Your task to perform on an android device: change text size in settings app Image 0: 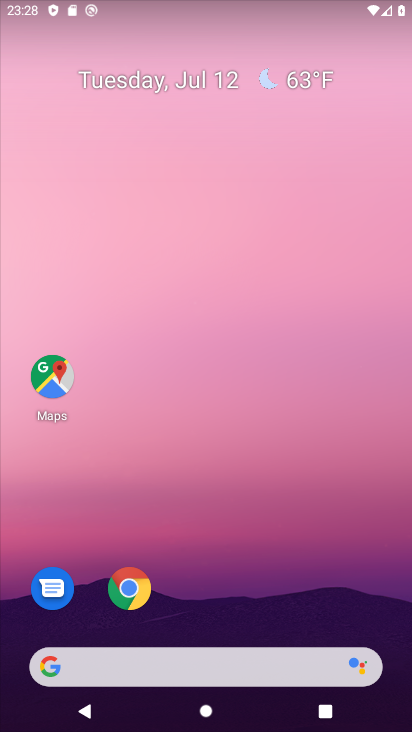
Step 0: drag from (43, 694) to (306, 71)
Your task to perform on an android device: change text size in settings app Image 1: 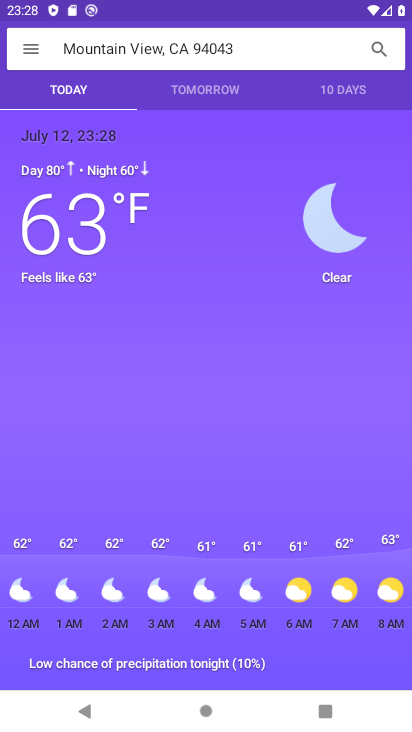
Step 1: press home button
Your task to perform on an android device: change text size in settings app Image 2: 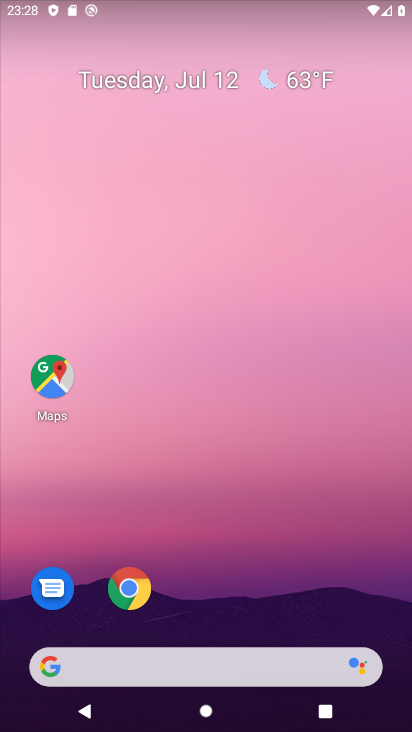
Step 2: drag from (22, 691) to (314, 19)
Your task to perform on an android device: change text size in settings app Image 3: 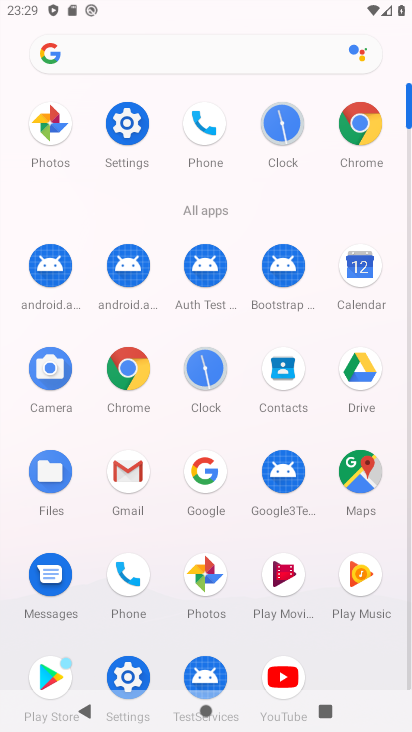
Step 3: click (116, 676)
Your task to perform on an android device: change text size in settings app Image 4: 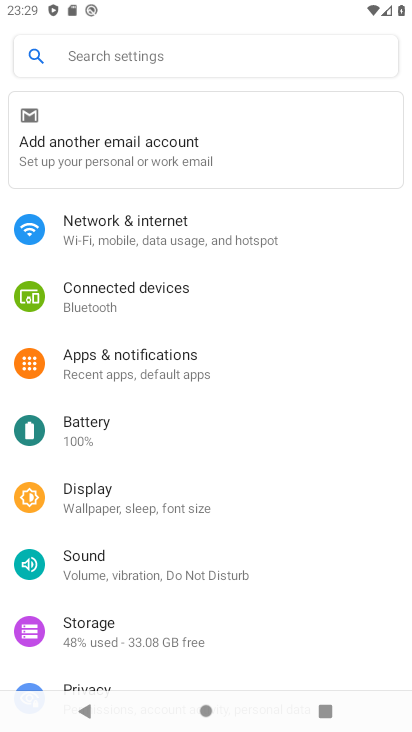
Step 4: drag from (286, 621) to (293, 241)
Your task to perform on an android device: change text size in settings app Image 5: 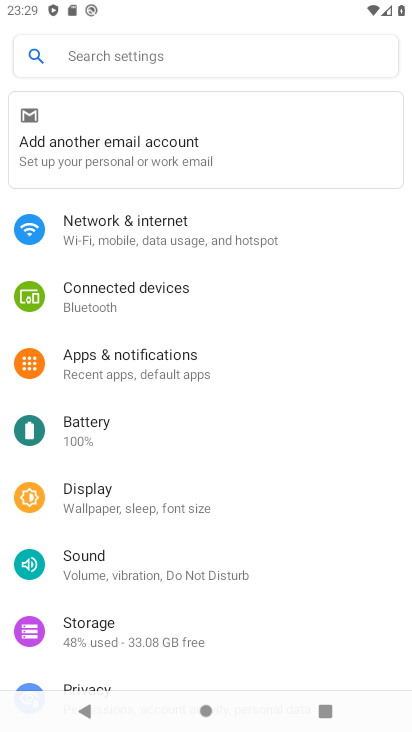
Step 5: drag from (179, 629) to (246, 224)
Your task to perform on an android device: change text size in settings app Image 6: 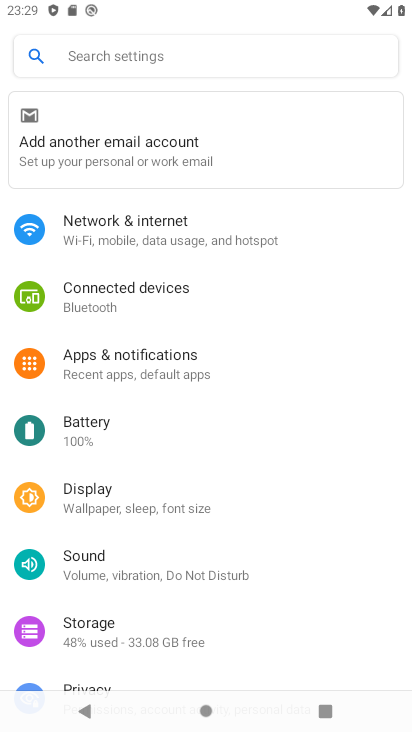
Step 6: drag from (273, 664) to (204, 63)
Your task to perform on an android device: change text size in settings app Image 7: 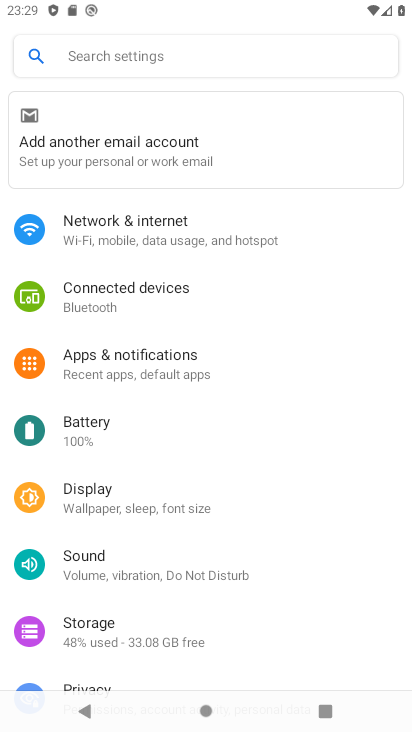
Step 7: drag from (168, 676) to (210, 99)
Your task to perform on an android device: change text size in settings app Image 8: 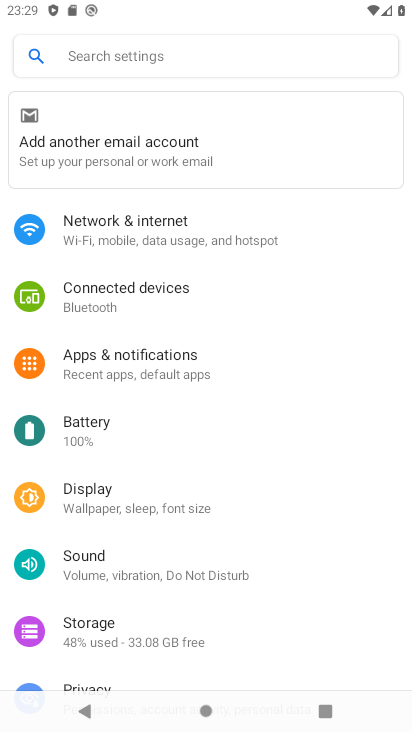
Step 8: drag from (311, 677) to (337, 100)
Your task to perform on an android device: change text size in settings app Image 9: 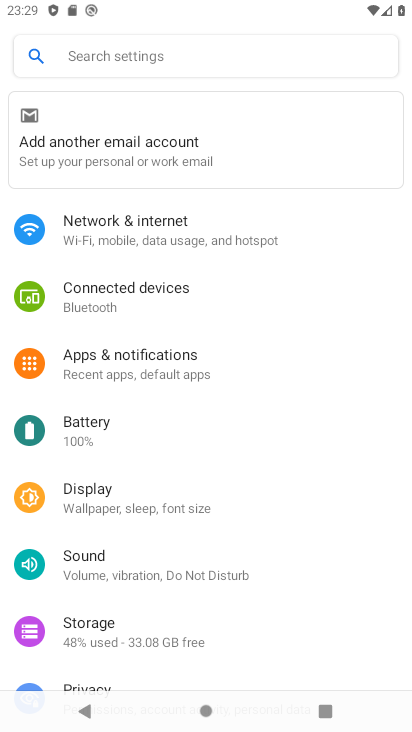
Step 9: drag from (290, 676) to (325, 276)
Your task to perform on an android device: change text size in settings app Image 10: 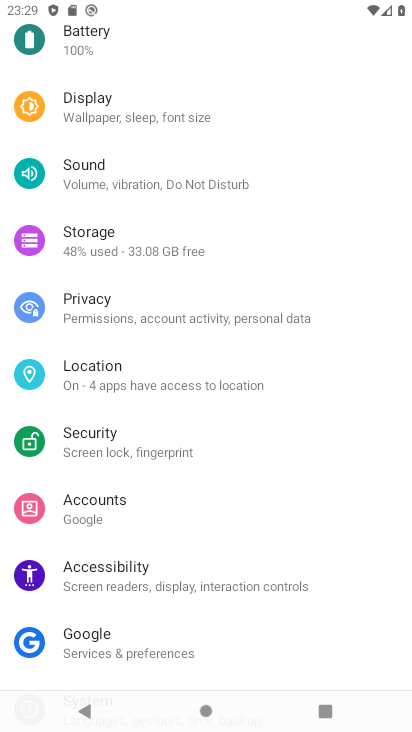
Step 10: drag from (293, 675) to (326, 212)
Your task to perform on an android device: change text size in settings app Image 11: 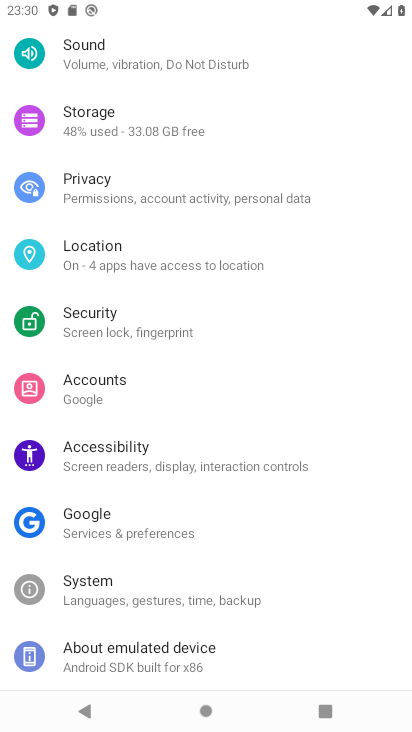
Step 11: drag from (281, 112) to (275, 730)
Your task to perform on an android device: change text size in settings app Image 12: 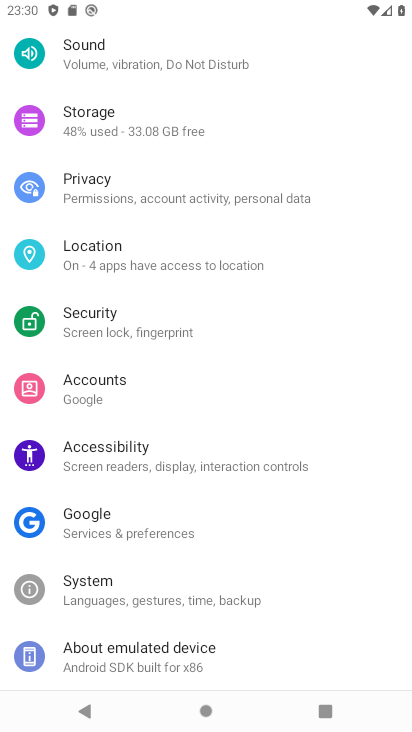
Step 12: drag from (247, 45) to (247, 376)
Your task to perform on an android device: change text size in settings app Image 13: 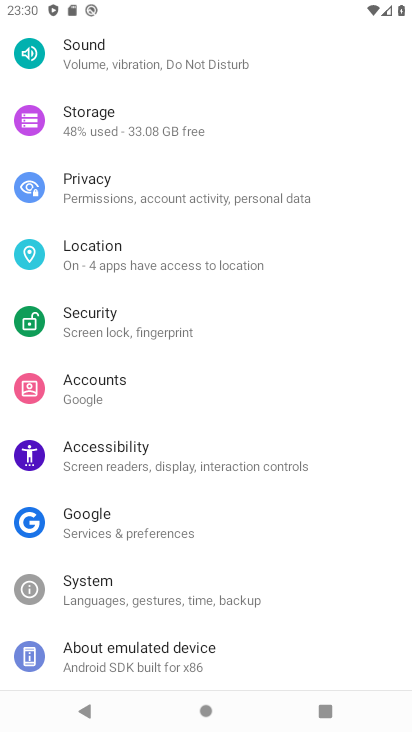
Step 13: drag from (201, 73) to (161, 731)
Your task to perform on an android device: change text size in settings app Image 14: 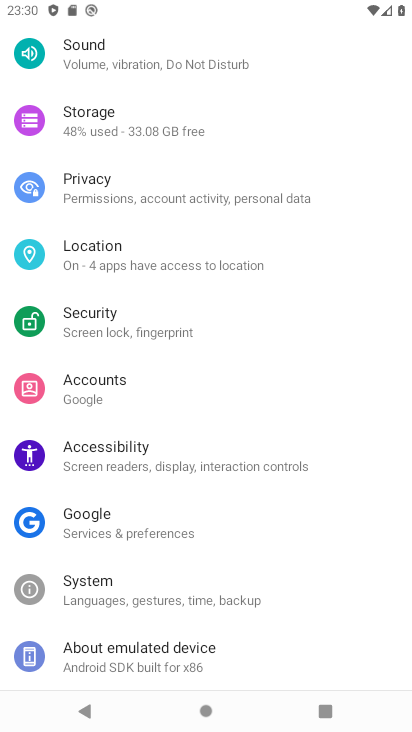
Step 14: click (138, 476)
Your task to perform on an android device: change text size in settings app Image 15: 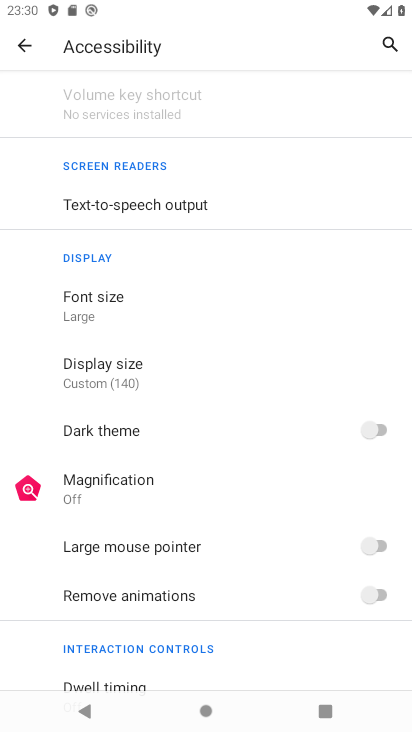
Step 15: click (108, 293)
Your task to perform on an android device: change text size in settings app Image 16: 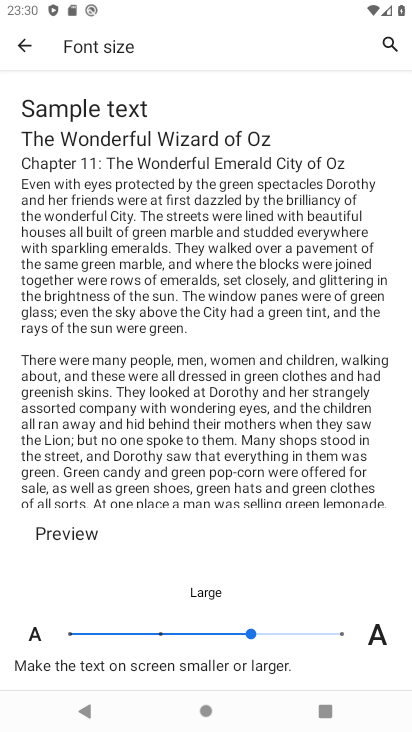
Step 16: click (231, 631)
Your task to perform on an android device: change text size in settings app Image 17: 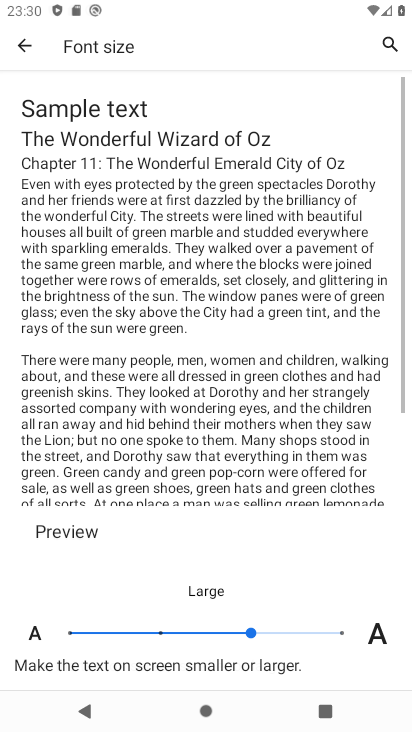
Step 17: click (262, 631)
Your task to perform on an android device: change text size in settings app Image 18: 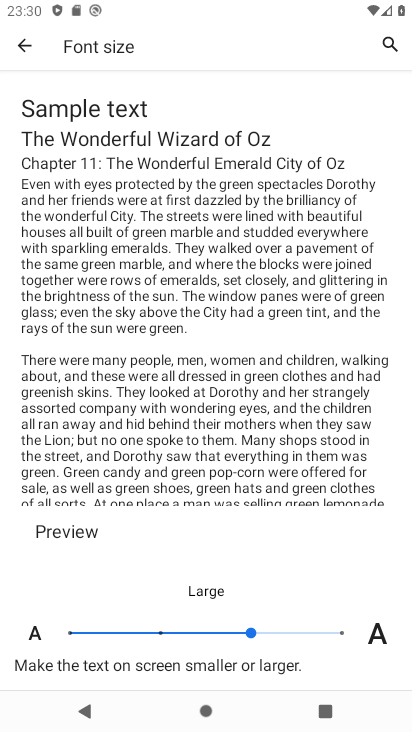
Step 18: task complete